Your task to perform on an android device: toggle airplane mode Image 0: 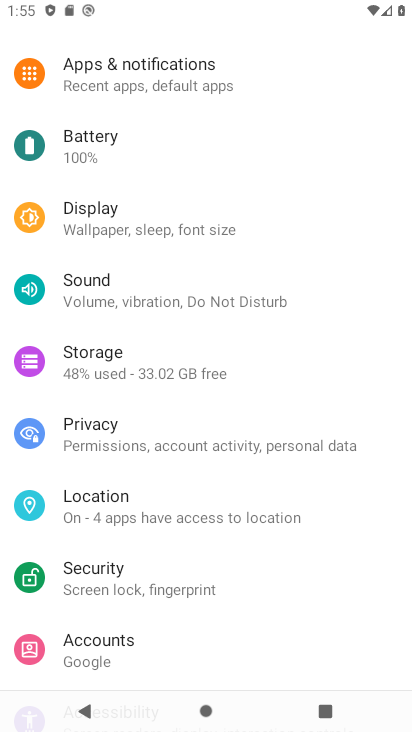
Step 0: drag from (173, 138) to (251, 677)
Your task to perform on an android device: toggle airplane mode Image 1: 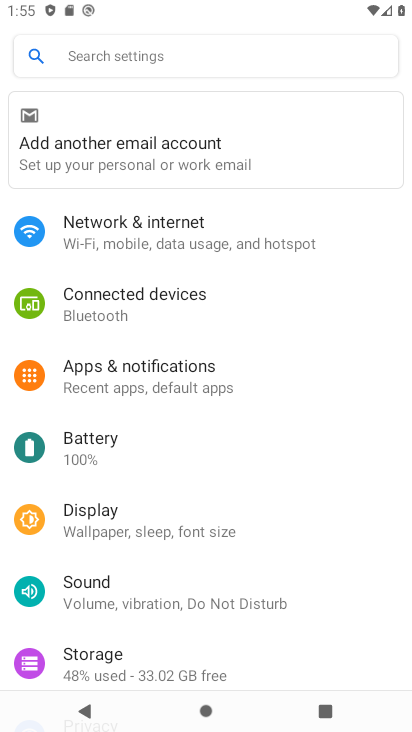
Step 1: click (189, 228)
Your task to perform on an android device: toggle airplane mode Image 2: 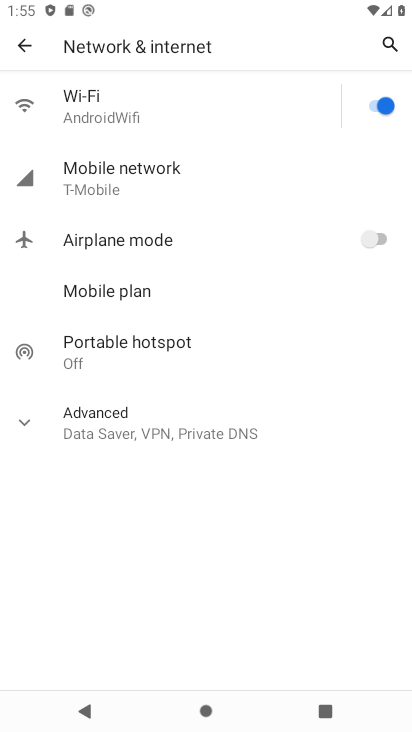
Step 2: click (379, 237)
Your task to perform on an android device: toggle airplane mode Image 3: 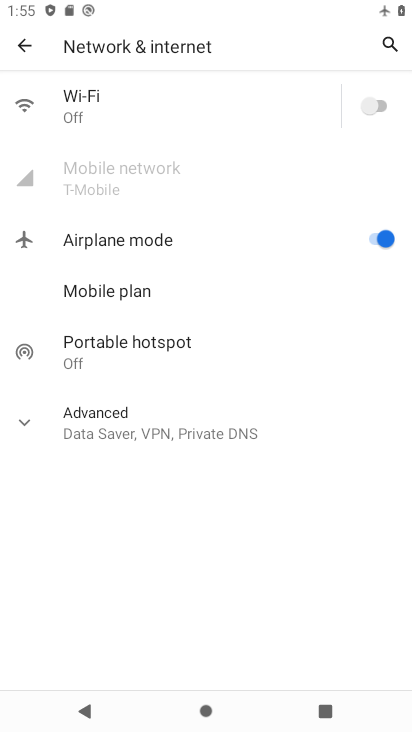
Step 3: task complete